Your task to perform on an android device: toggle improve location accuracy Image 0: 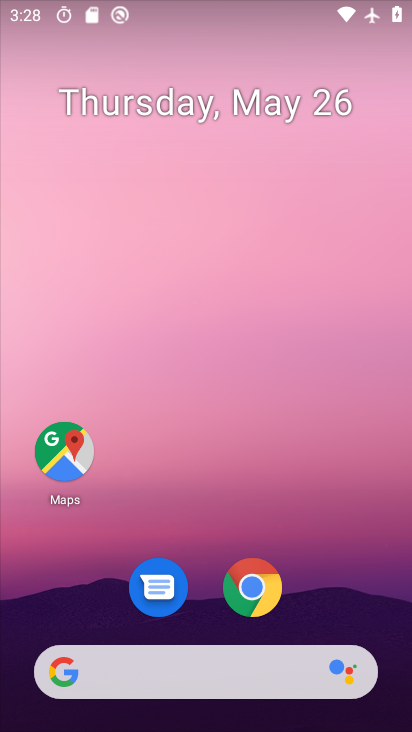
Step 0: drag from (314, 702) to (179, 226)
Your task to perform on an android device: toggle improve location accuracy Image 1: 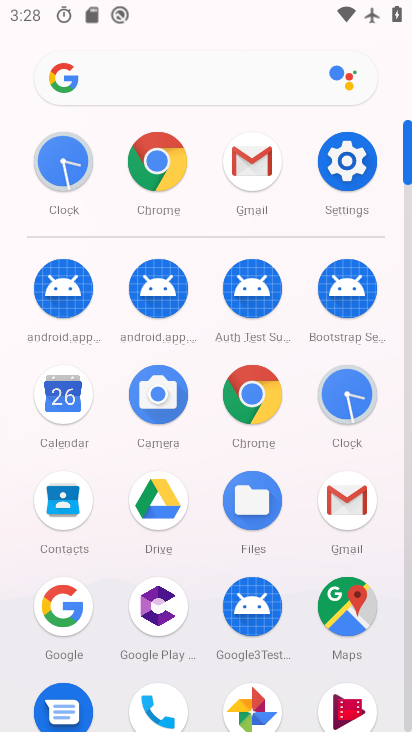
Step 1: click (345, 155)
Your task to perform on an android device: toggle improve location accuracy Image 2: 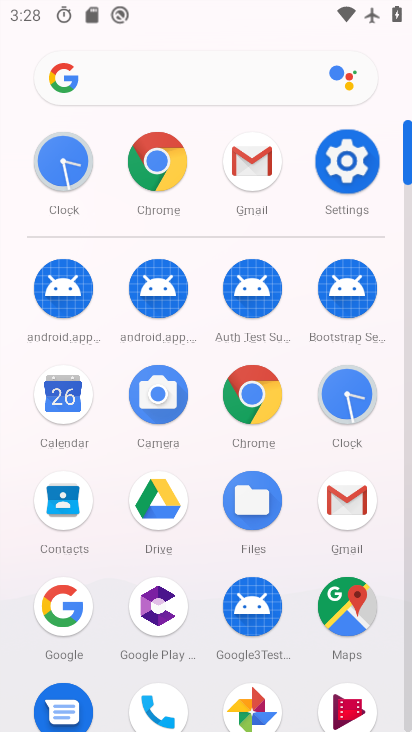
Step 2: click (347, 156)
Your task to perform on an android device: toggle improve location accuracy Image 3: 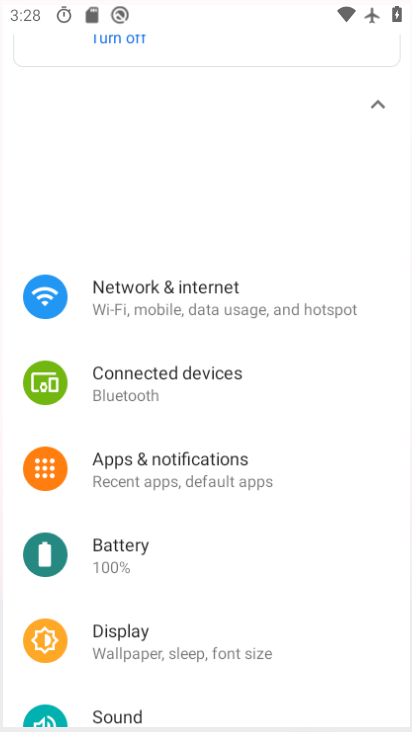
Step 3: click (352, 161)
Your task to perform on an android device: toggle improve location accuracy Image 4: 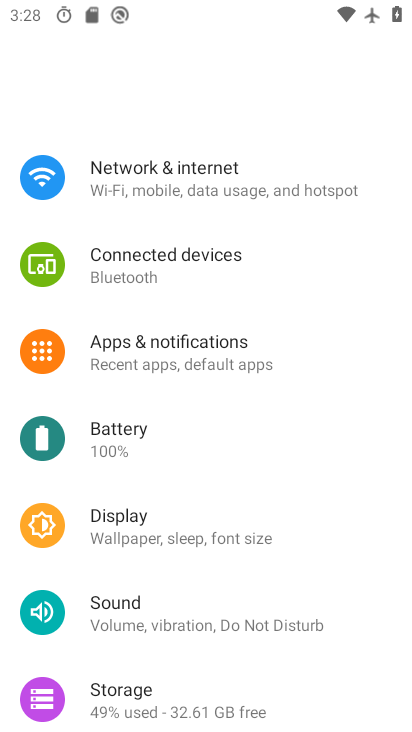
Step 4: click (352, 161)
Your task to perform on an android device: toggle improve location accuracy Image 5: 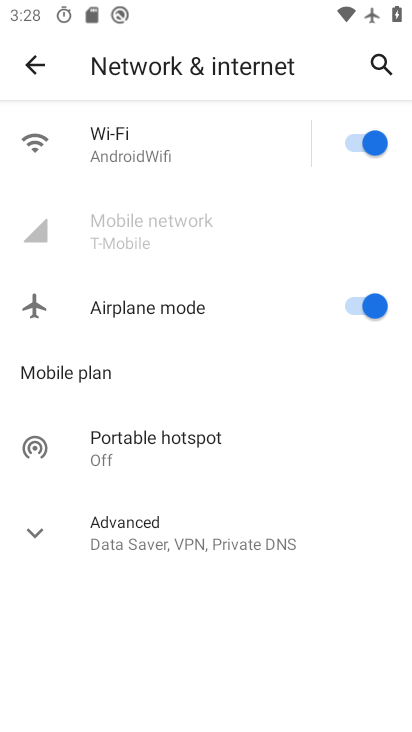
Step 5: drag from (229, 507) to (230, 112)
Your task to perform on an android device: toggle improve location accuracy Image 6: 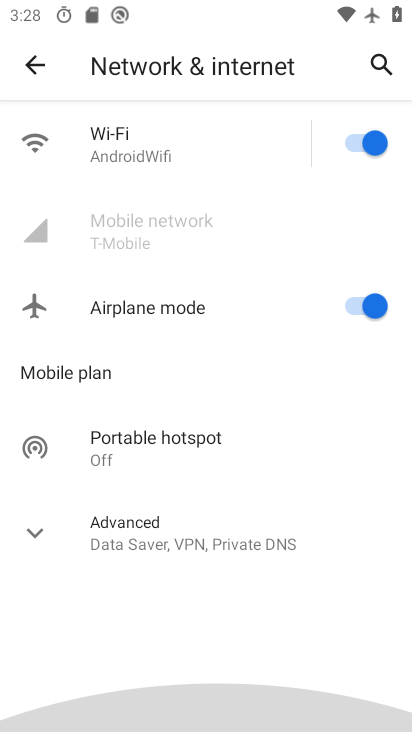
Step 6: drag from (160, 630) to (184, 134)
Your task to perform on an android device: toggle improve location accuracy Image 7: 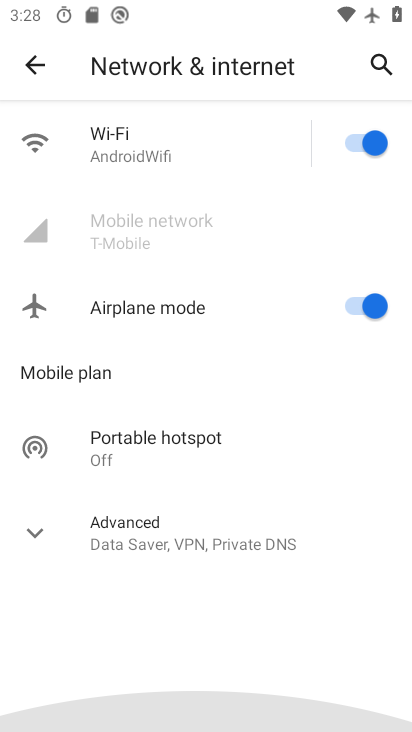
Step 7: drag from (229, 321) to (192, 45)
Your task to perform on an android device: toggle improve location accuracy Image 8: 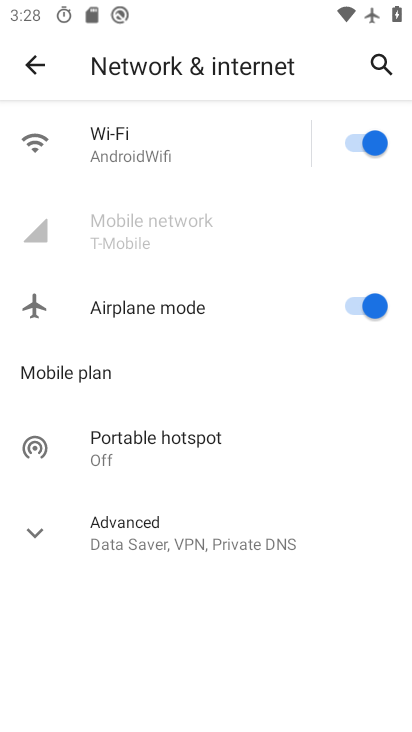
Step 8: click (34, 53)
Your task to perform on an android device: toggle improve location accuracy Image 9: 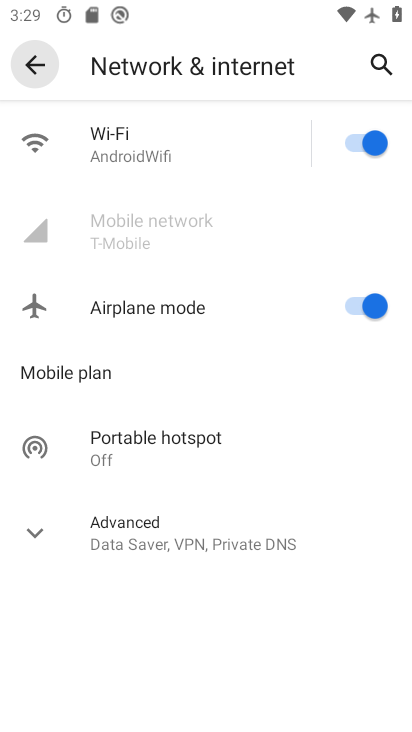
Step 9: click (34, 53)
Your task to perform on an android device: toggle improve location accuracy Image 10: 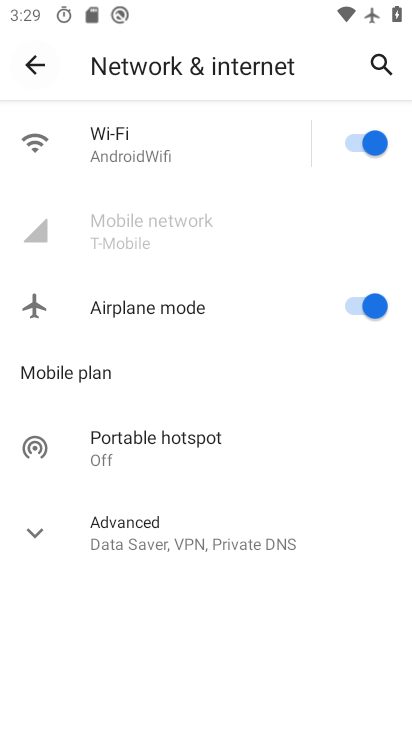
Step 10: click (34, 53)
Your task to perform on an android device: toggle improve location accuracy Image 11: 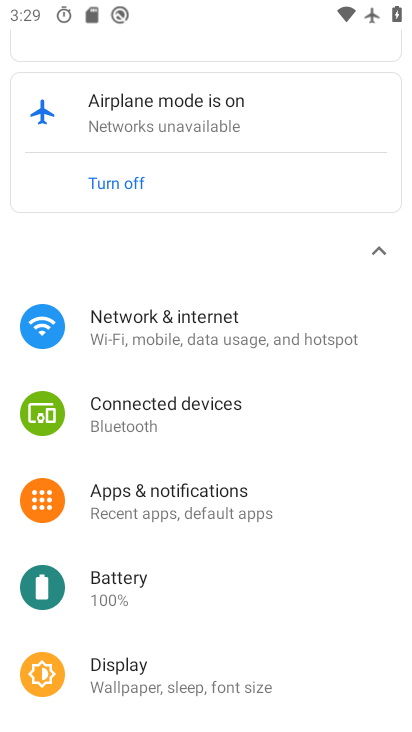
Step 11: drag from (223, 602) to (167, 179)
Your task to perform on an android device: toggle improve location accuracy Image 12: 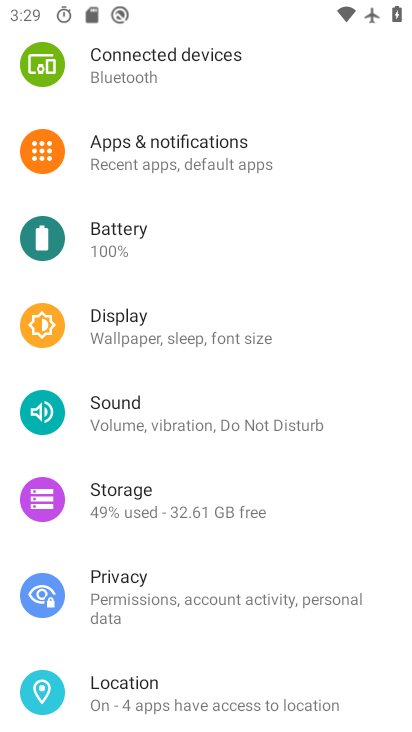
Step 12: drag from (261, 484) to (218, 144)
Your task to perform on an android device: toggle improve location accuracy Image 13: 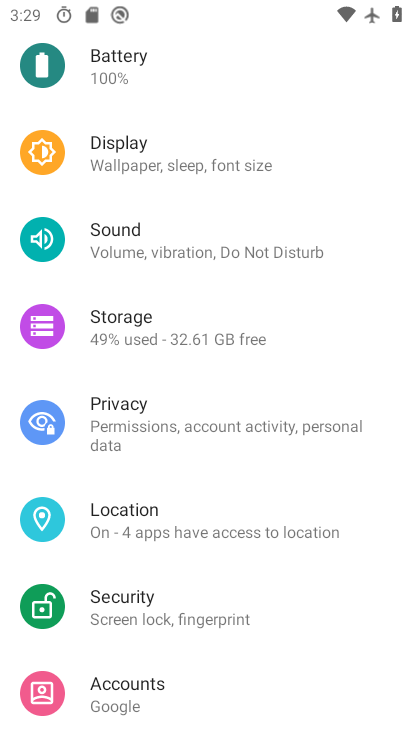
Step 13: drag from (263, 467) to (197, 18)
Your task to perform on an android device: toggle improve location accuracy Image 14: 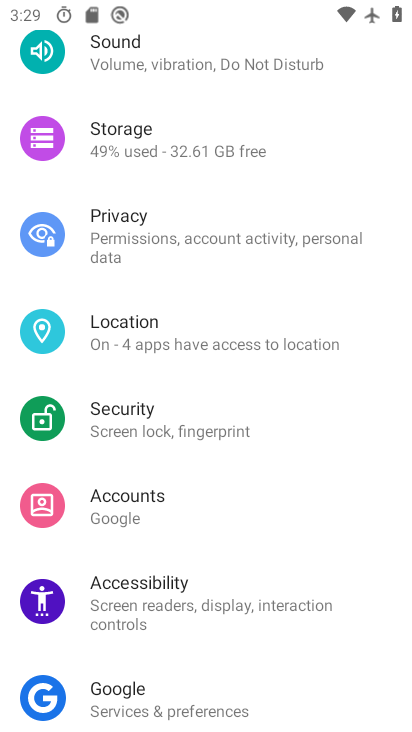
Step 14: drag from (162, 438) to (162, 129)
Your task to perform on an android device: toggle improve location accuracy Image 15: 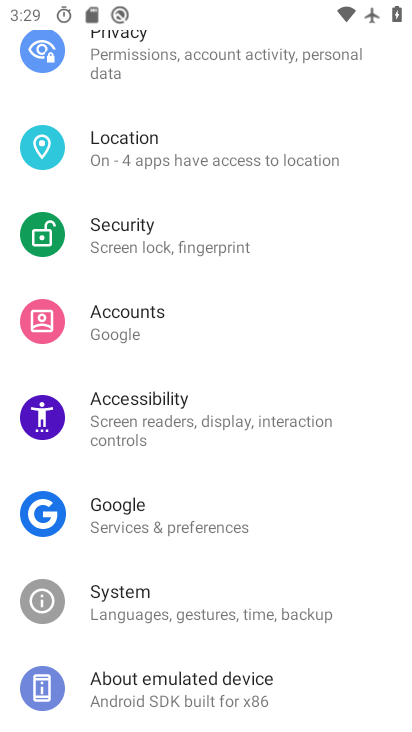
Step 15: click (152, 151)
Your task to perform on an android device: toggle improve location accuracy Image 16: 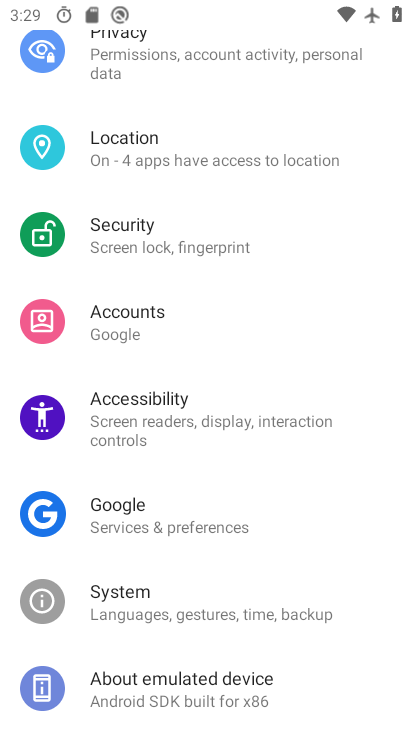
Step 16: click (153, 151)
Your task to perform on an android device: toggle improve location accuracy Image 17: 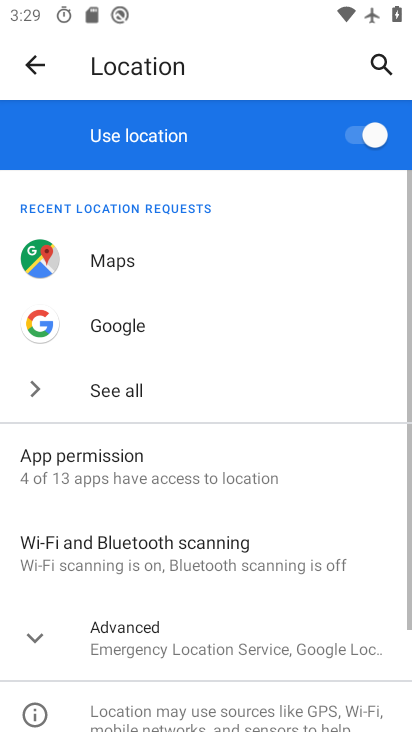
Step 17: drag from (189, 596) to (177, 323)
Your task to perform on an android device: toggle improve location accuracy Image 18: 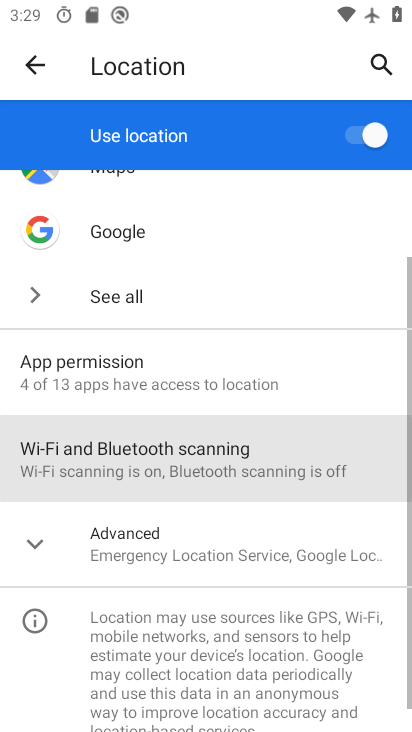
Step 18: drag from (205, 400) to (164, 226)
Your task to perform on an android device: toggle improve location accuracy Image 19: 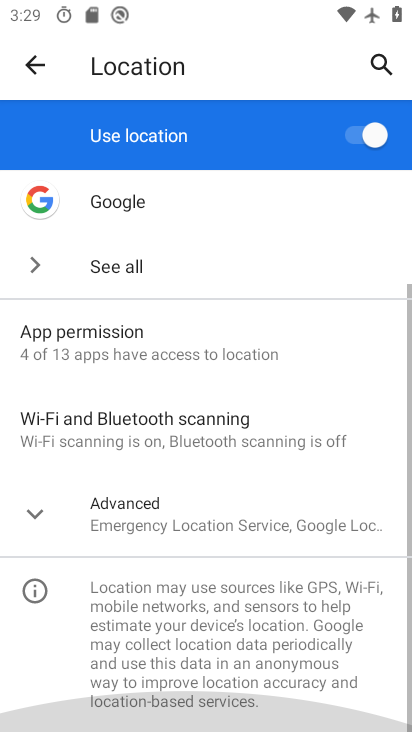
Step 19: drag from (188, 375) to (188, 242)
Your task to perform on an android device: toggle improve location accuracy Image 20: 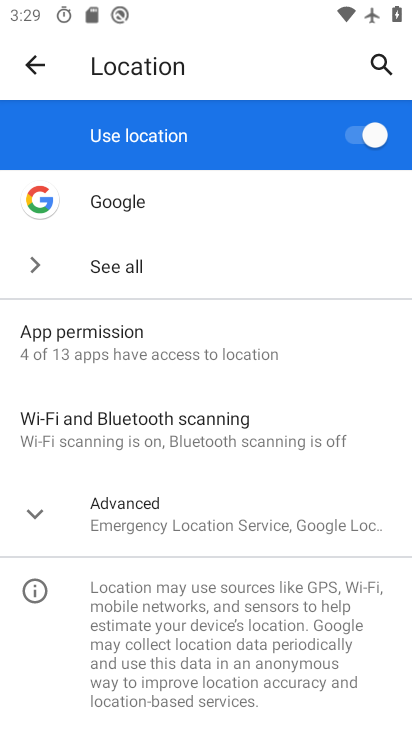
Step 20: click (135, 520)
Your task to perform on an android device: toggle improve location accuracy Image 21: 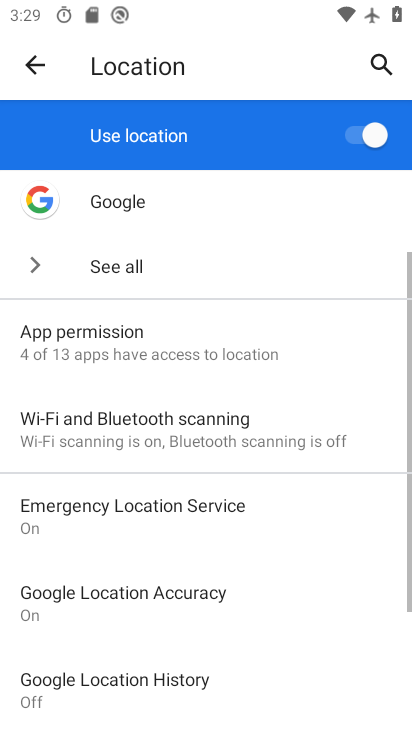
Step 21: drag from (214, 553) to (261, 264)
Your task to perform on an android device: toggle improve location accuracy Image 22: 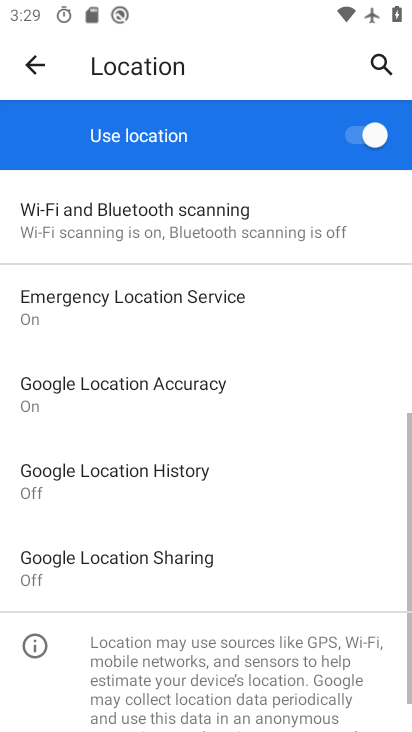
Step 22: drag from (237, 332) to (223, 174)
Your task to perform on an android device: toggle improve location accuracy Image 23: 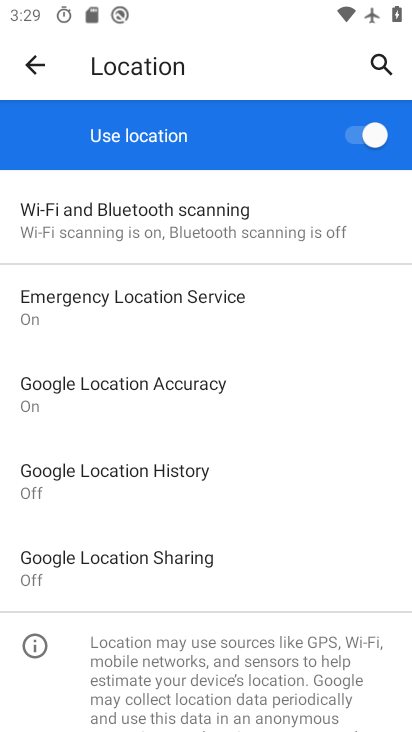
Step 23: drag from (239, 371) to (290, 176)
Your task to perform on an android device: toggle improve location accuracy Image 24: 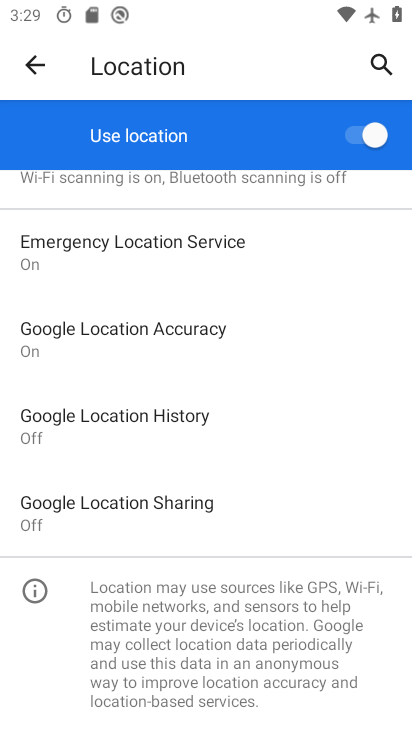
Step 24: click (72, 326)
Your task to perform on an android device: toggle improve location accuracy Image 25: 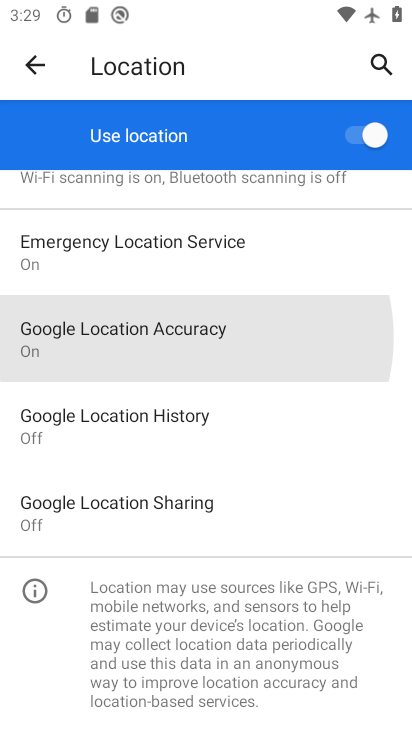
Step 25: click (72, 326)
Your task to perform on an android device: toggle improve location accuracy Image 26: 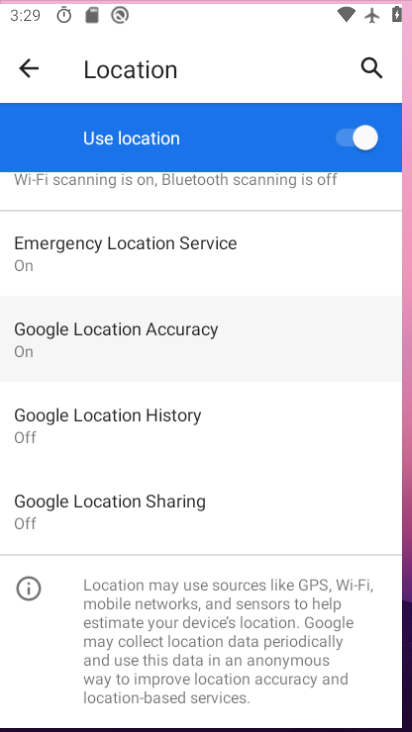
Step 26: click (72, 326)
Your task to perform on an android device: toggle improve location accuracy Image 27: 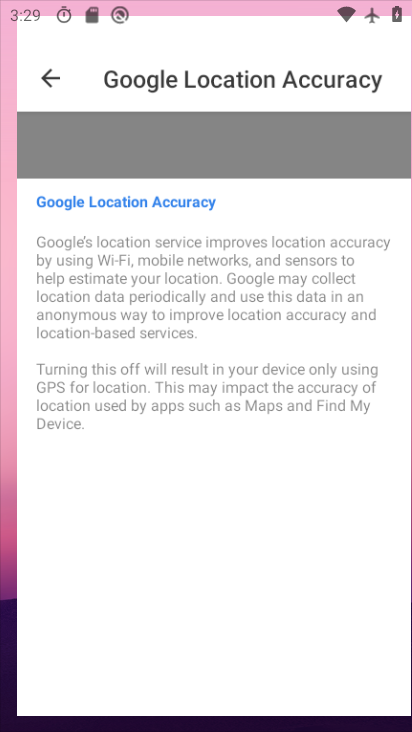
Step 27: click (72, 326)
Your task to perform on an android device: toggle improve location accuracy Image 28: 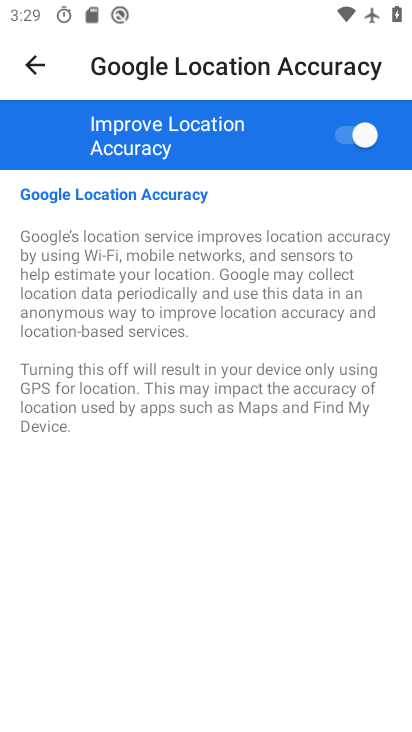
Step 28: click (361, 127)
Your task to perform on an android device: toggle improve location accuracy Image 29: 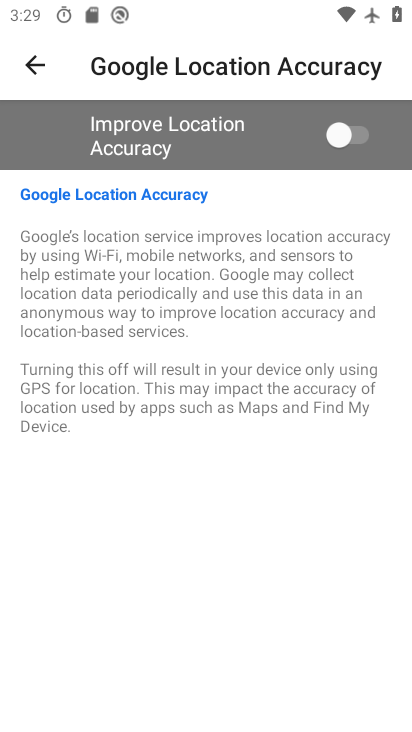
Step 29: task complete